Your task to perform on an android device: Open calendar and show me the second week of next month Image 0: 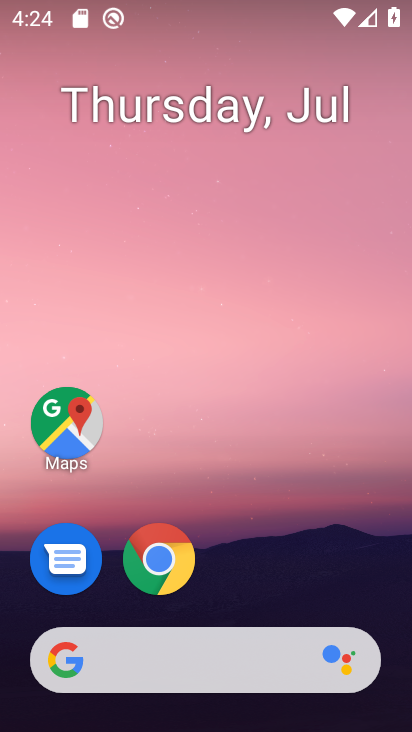
Step 0: drag from (255, 619) to (292, 150)
Your task to perform on an android device: Open calendar and show me the second week of next month Image 1: 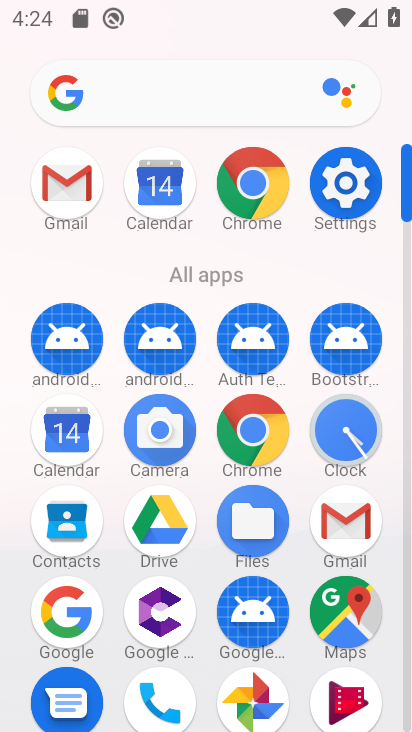
Step 1: click (69, 436)
Your task to perform on an android device: Open calendar and show me the second week of next month Image 2: 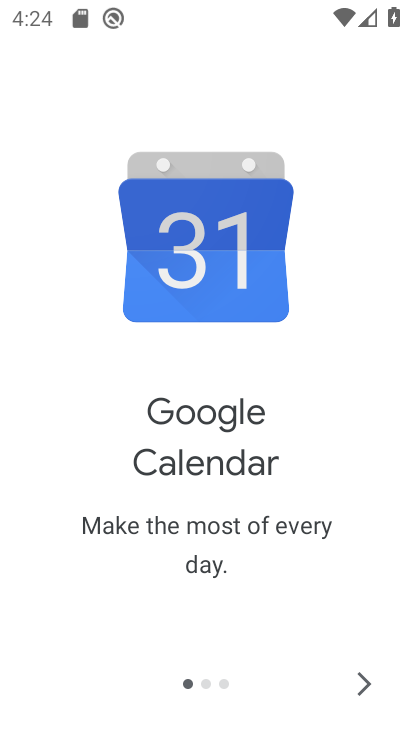
Step 2: click (355, 688)
Your task to perform on an android device: Open calendar and show me the second week of next month Image 3: 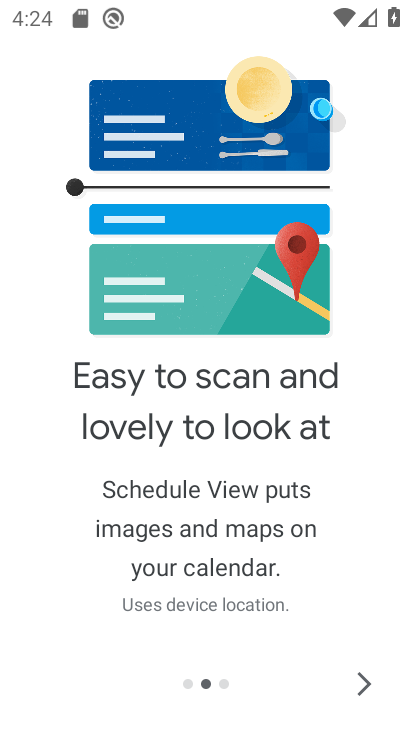
Step 3: click (361, 677)
Your task to perform on an android device: Open calendar and show me the second week of next month Image 4: 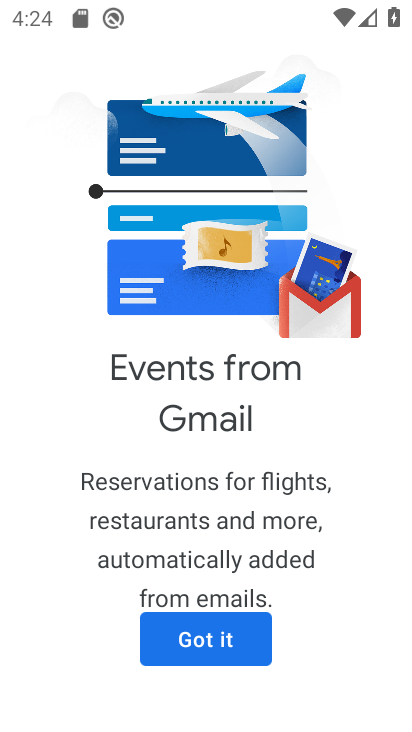
Step 4: click (223, 659)
Your task to perform on an android device: Open calendar and show me the second week of next month Image 5: 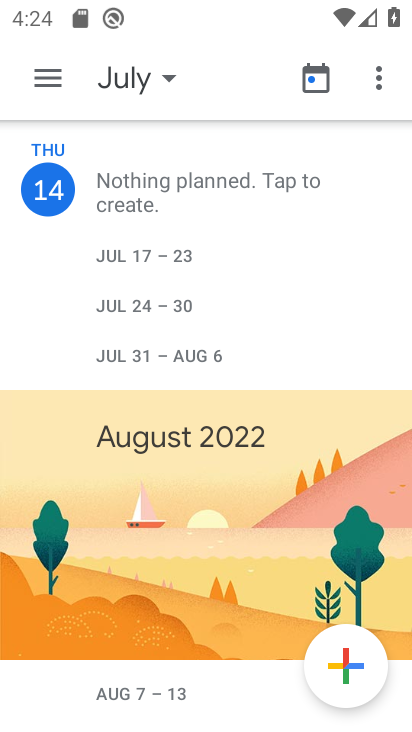
Step 5: click (161, 72)
Your task to perform on an android device: Open calendar and show me the second week of next month Image 6: 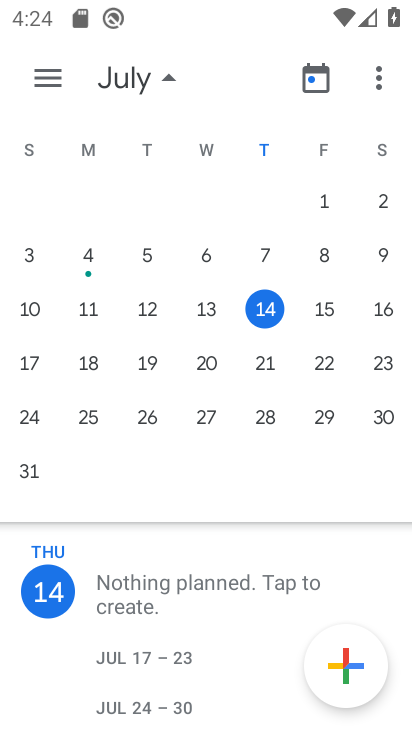
Step 6: drag from (376, 409) to (5, 464)
Your task to perform on an android device: Open calendar and show me the second week of next month Image 7: 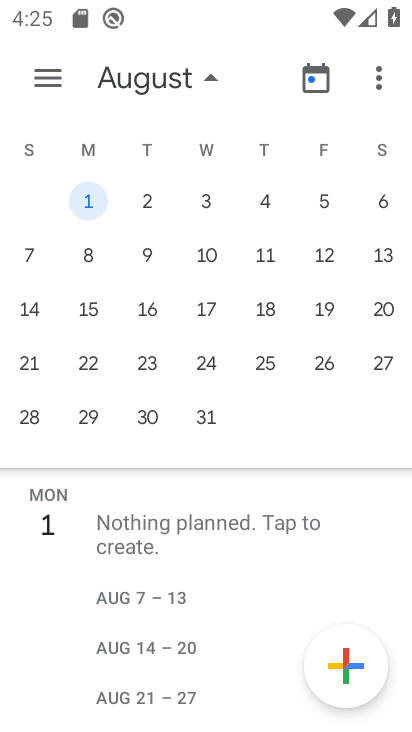
Step 7: click (88, 271)
Your task to perform on an android device: Open calendar and show me the second week of next month Image 8: 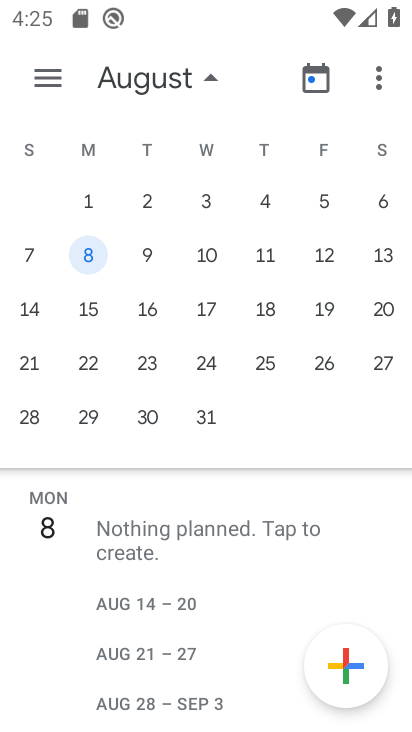
Step 8: task complete